Your task to perform on an android device: Show me productivity apps on the Play Store Image 0: 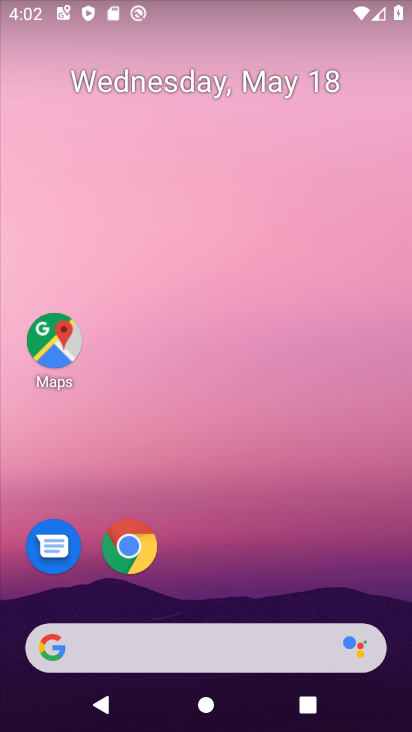
Step 0: drag from (195, 564) to (272, 46)
Your task to perform on an android device: Show me productivity apps on the Play Store Image 1: 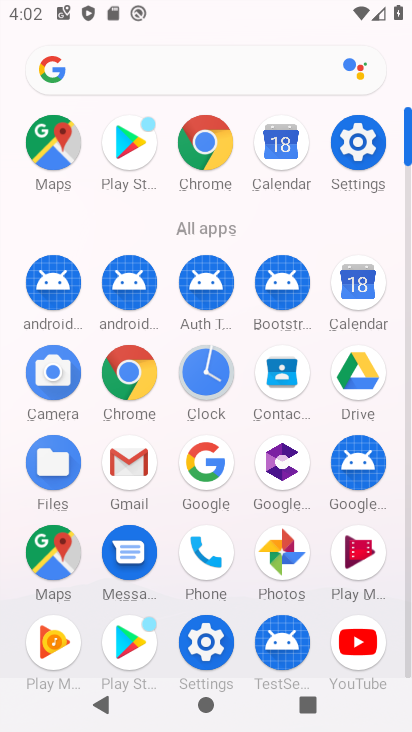
Step 1: click (118, 638)
Your task to perform on an android device: Show me productivity apps on the Play Store Image 2: 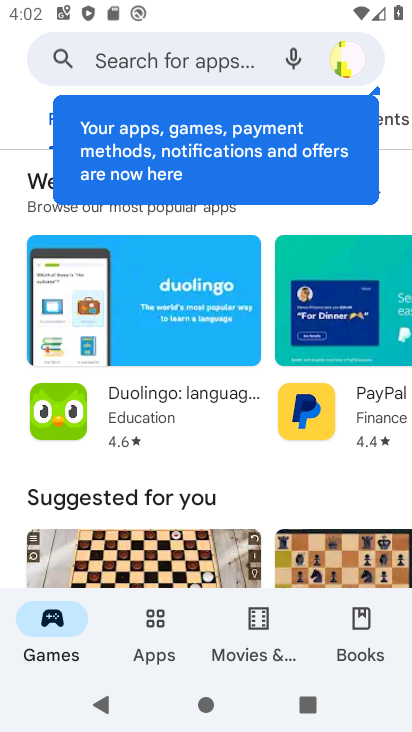
Step 2: drag from (33, 120) to (4, 503)
Your task to perform on an android device: Show me productivity apps on the Play Store Image 3: 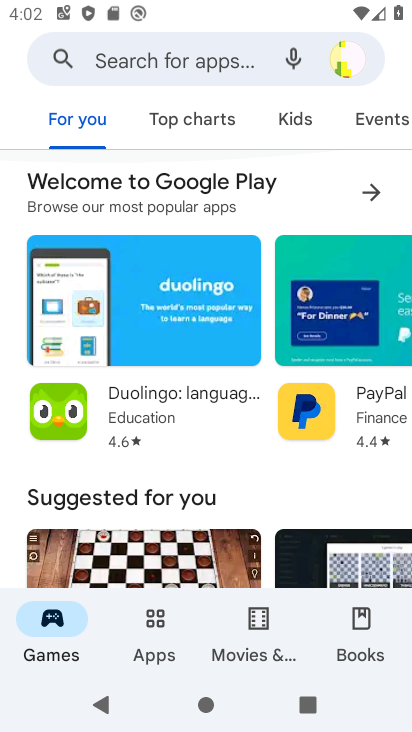
Step 3: click (155, 638)
Your task to perform on an android device: Show me productivity apps on the Play Store Image 4: 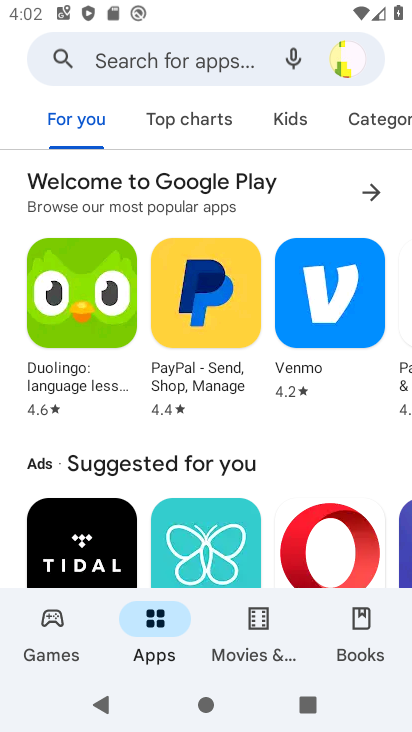
Step 4: click (378, 109)
Your task to perform on an android device: Show me productivity apps on the Play Store Image 5: 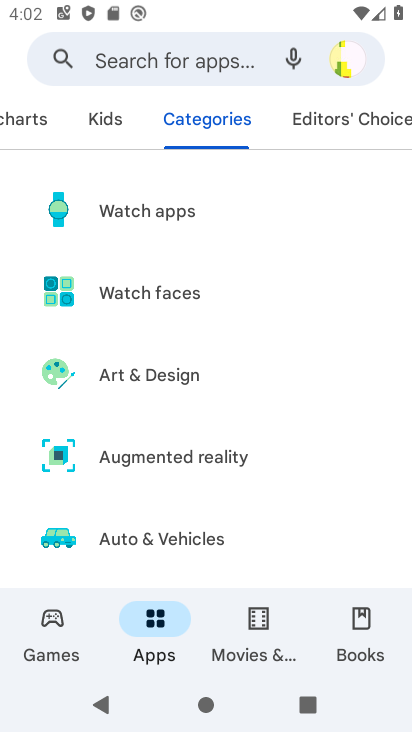
Step 5: drag from (182, 504) to (267, 139)
Your task to perform on an android device: Show me productivity apps on the Play Store Image 6: 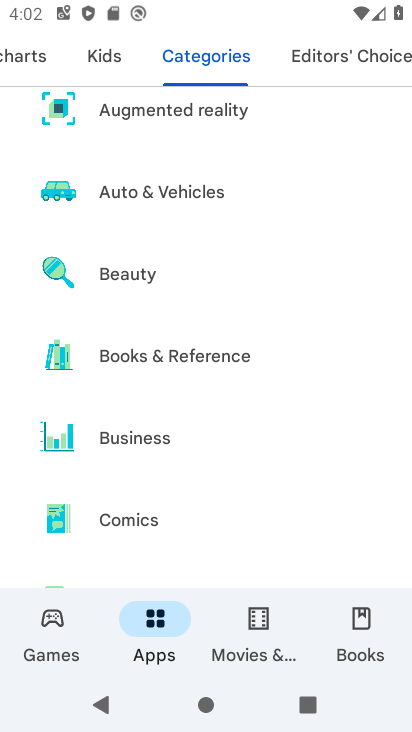
Step 6: drag from (185, 517) to (254, 151)
Your task to perform on an android device: Show me productivity apps on the Play Store Image 7: 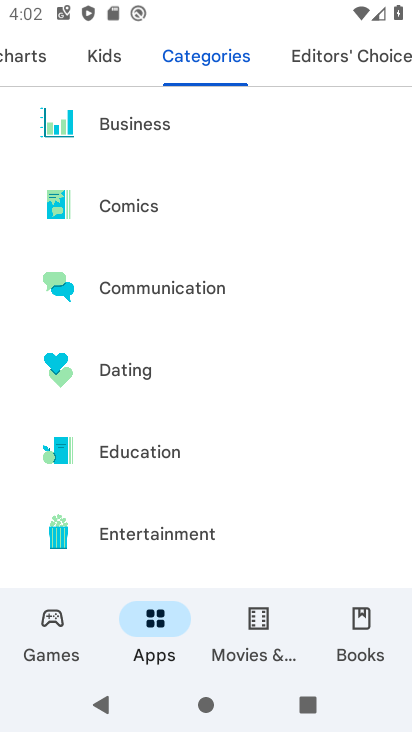
Step 7: drag from (176, 512) to (265, 58)
Your task to perform on an android device: Show me productivity apps on the Play Store Image 8: 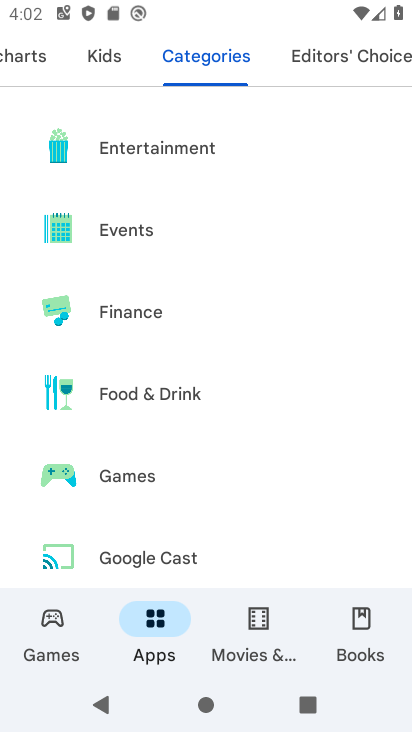
Step 8: drag from (170, 487) to (230, 104)
Your task to perform on an android device: Show me productivity apps on the Play Store Image 9: 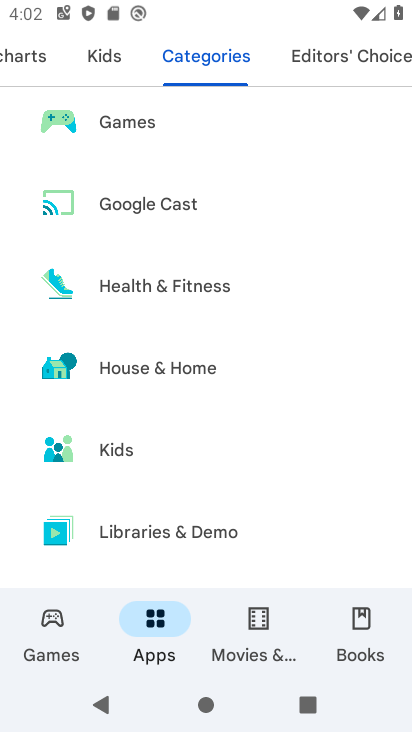
Step 9: drag from (191, 507) to (179, 194)
Your task to perform on an android device: Show me productivity apps on the Play Store Image 10: 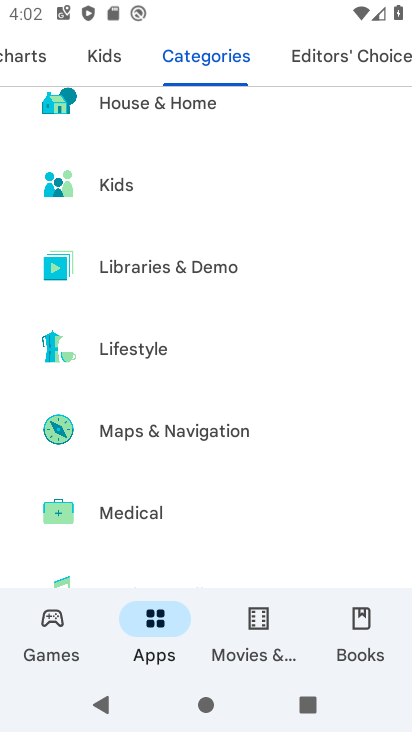
Step 10: drag from (129, 457) to (183, 72)
Your task to perform on an android device: Show me productivity apps on the Play Store Image 11: 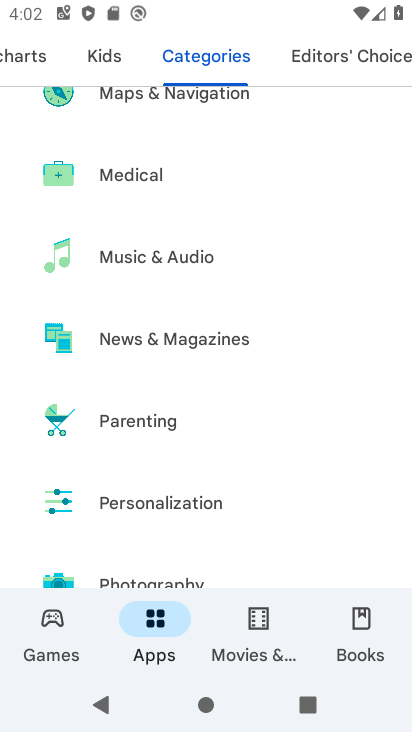
Step 11: drag from (123, 514) to (184, 212)
Your task to perform on an android device: Show me productivity apps on the Play Store Image 12: 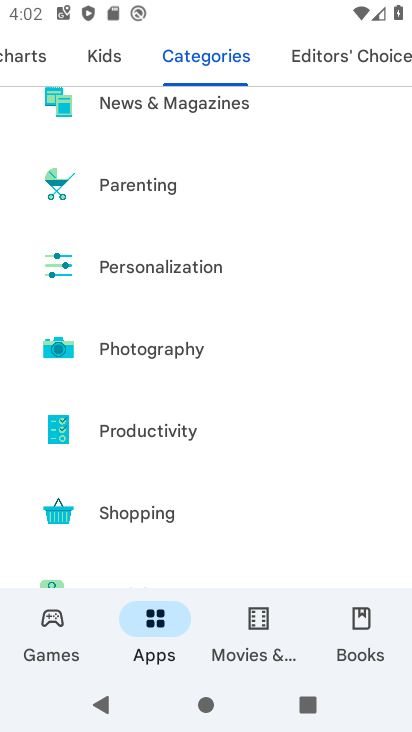
Step 12: click (168, 441)
Your task to perform on an android device: Show me productivity apps on the Play Store Image 13: 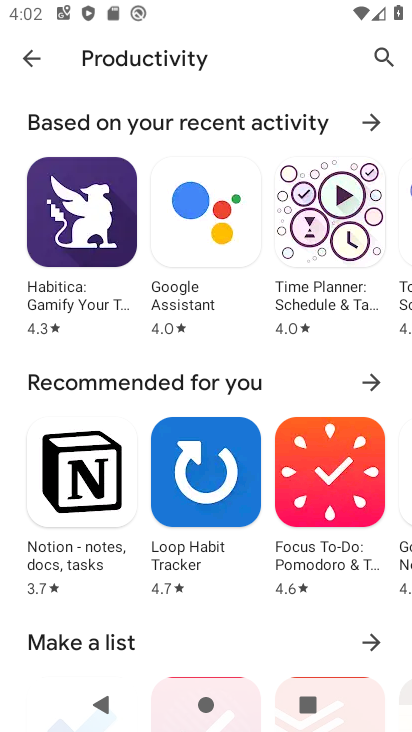
Step 13: task complete